Your task to perform on an android device: Open the calendar app, open the side menu, and click the "Day" option Image 0: 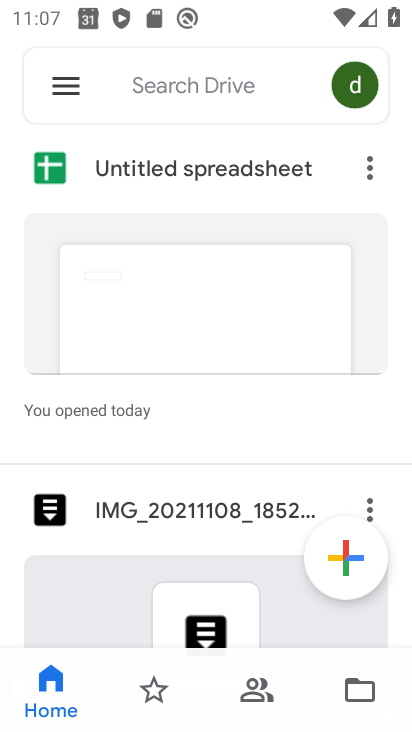
Step 0: press home button
Your task to perform on an android device: Open the calendar app, open the side menu, and click the "Day" option Image 1: 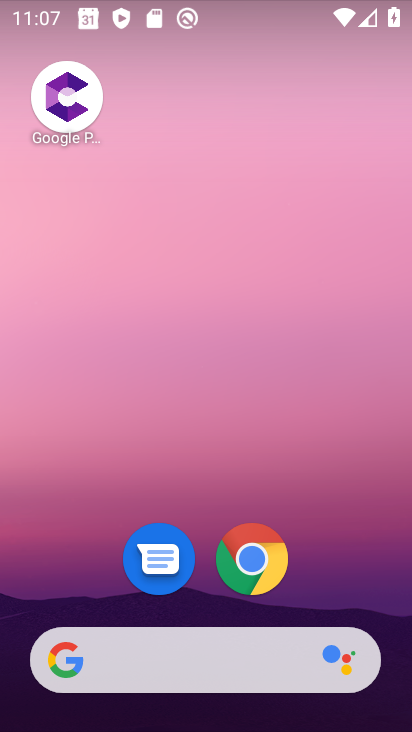
Step 1: drag from (343, 548) to (390, 190)
Your task to perform on an android device: Open the calendar app, open the side menu, and click the "Day" option Image 2: 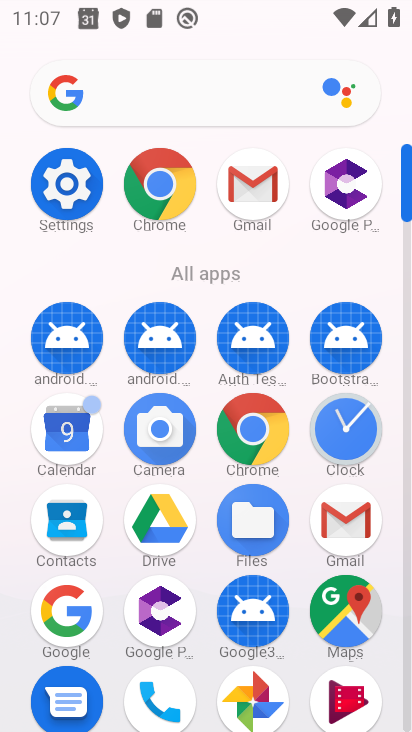
Step 2: click (73, 424)
Your task to perform on an android device: Open the calendar app, open the side menu, and click the "Day" option Image 3: 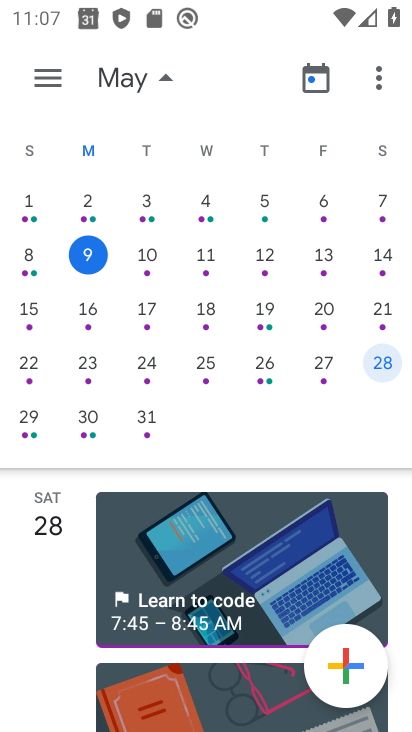
Step 3: click (45, 101)
Your task to perform on an android device: Open the calendar app, open the side menu, and click the "Day" option Image 4: 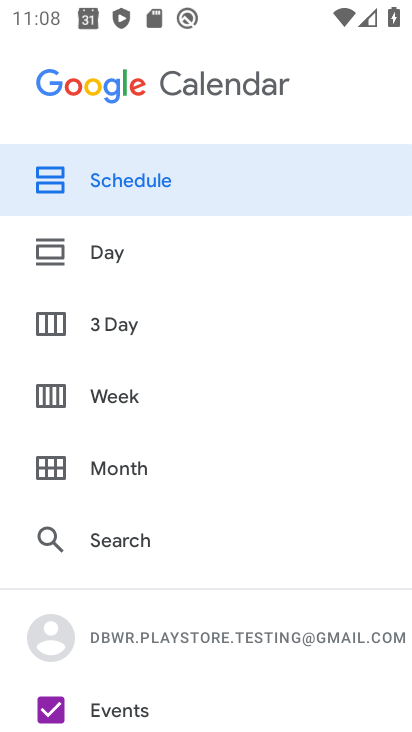
Step 4: click (108, 256)
Your task to perform on an android device: Open the calendar app, open the side menu, and click the "Day" option Image 5: 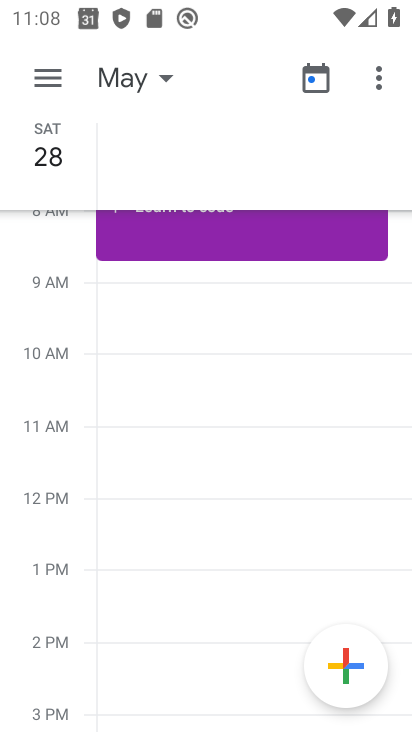
Step 5: task complete